Your task to perform on an android device: open wifi settings Image 0: 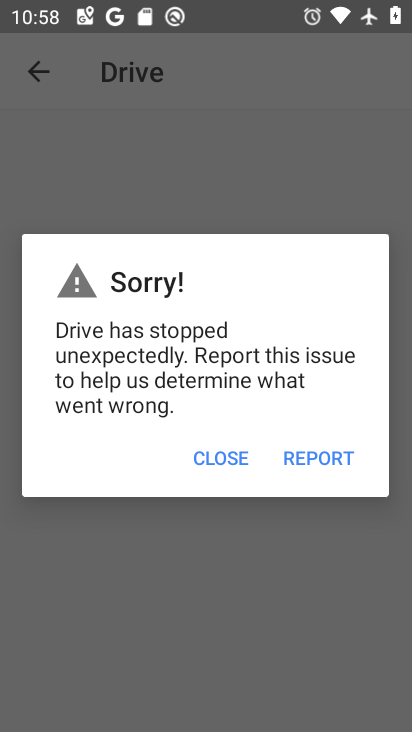
Step 0: press home button
Your task to perform on an android device: open wifi settings Image 1: 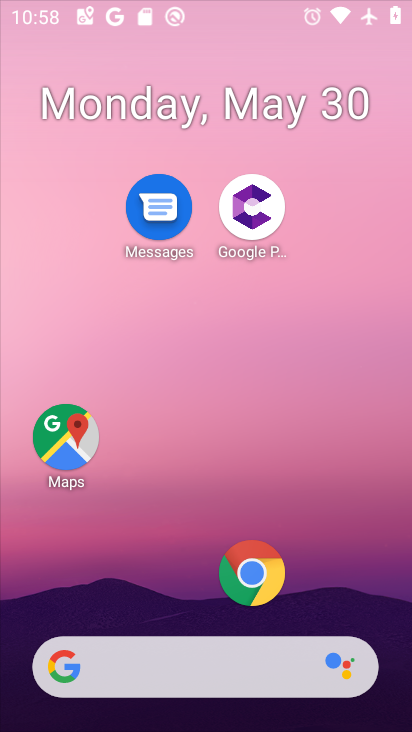
Step 1: drag from (197, 687) to (228, 272)
Your task to perform on an android device: open wifi settings Image 2: 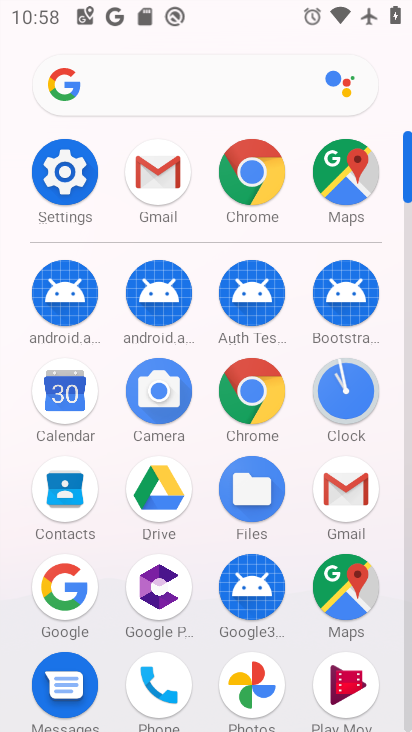
Step 2: click (75, 159)
Your task to perform on an android device: open wifi settings Image 3: 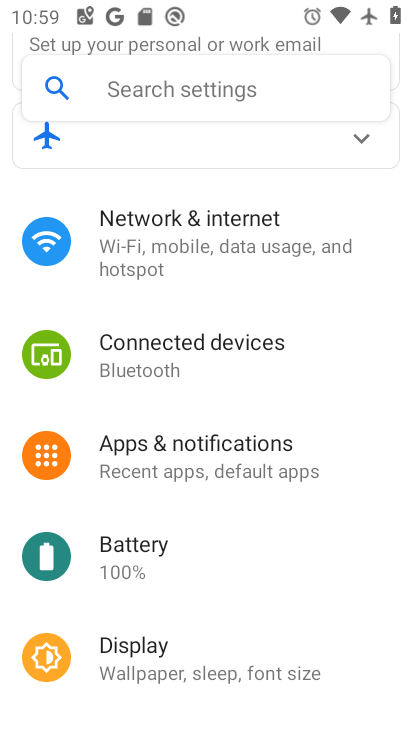
Step 3: click (184, 249)
Your task to perform on an android device: open wifi settings Image 4: 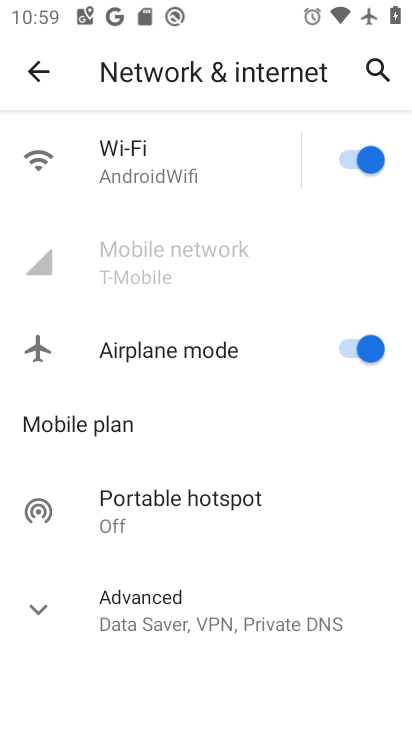
Step 4: click (197, 157)
Your task to perform on an android device: open wifi settings Image 5: 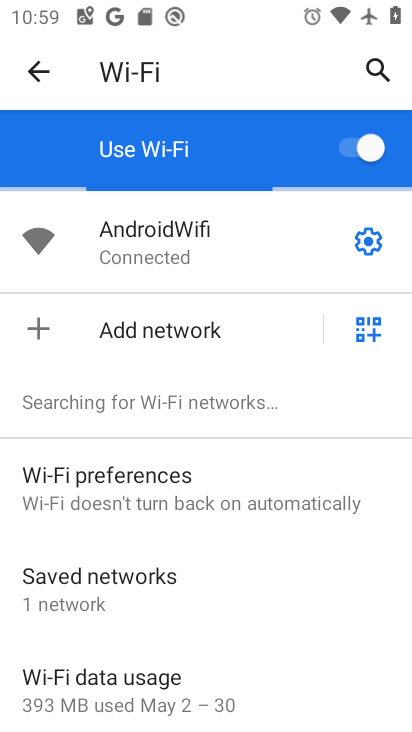
Step 5: task complete